Your task to perform on an android device: see tabs open on other devices in the chrome app Image 0: 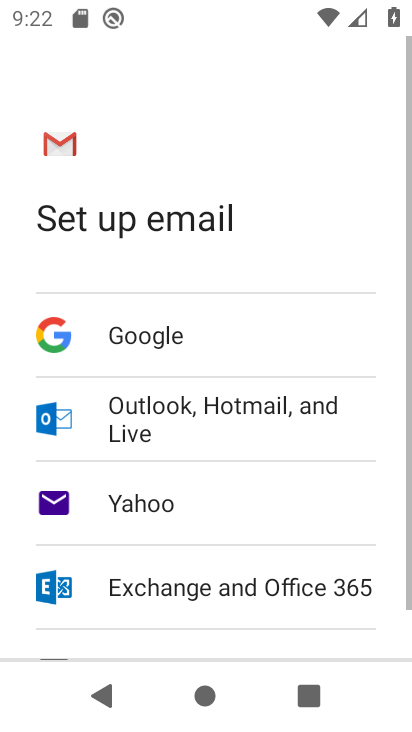
Step 0: press home button
Your task to perform on an android device: see tabs open on other devices in the chrome app Image 1: 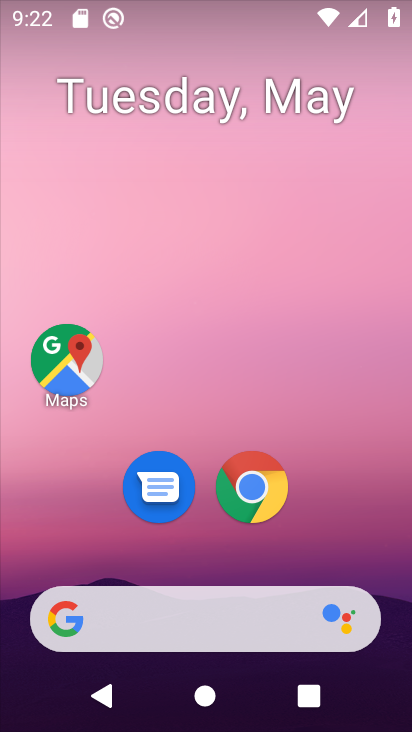
Step 1: click (240, 496)
Your task to perform on an android device: see tabs open on other devices in the chrome app Image 2: 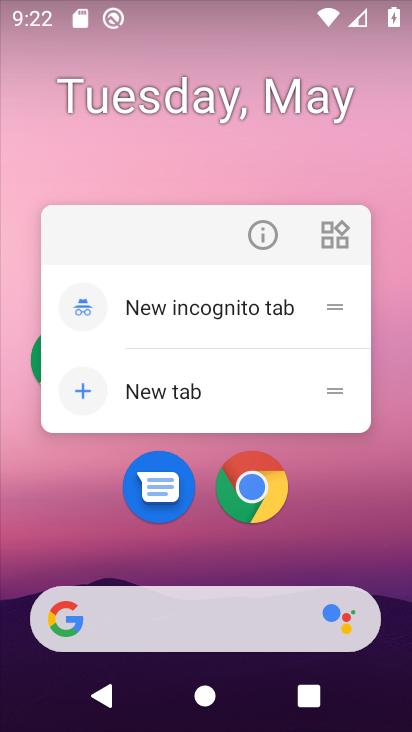
Step 2: click (240, 496)
Your task to perform on an android device: see tabs open on other devices in the chrome app Image 3: 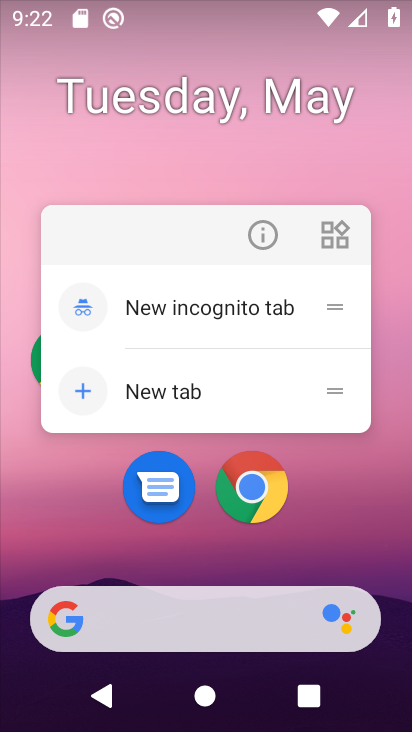
Step 3: click (263, 485)
Your task to perform on an android device: see tabs open on other devices in the chrome app Image 4: 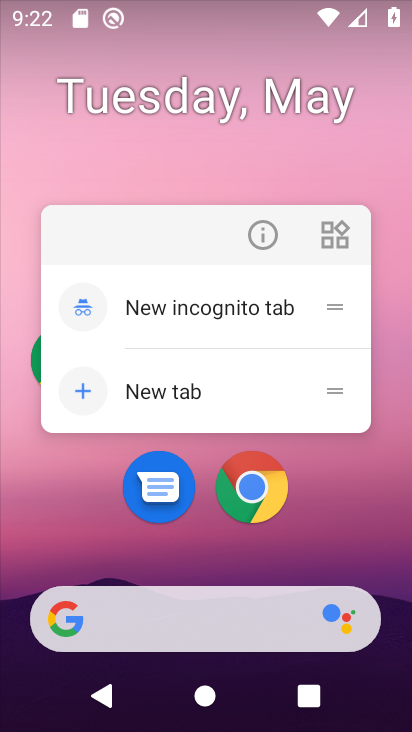
Step 4: click (263, 485)
Your task to perform on an android device: see tabs open on other devices in the chrome app Image 5: 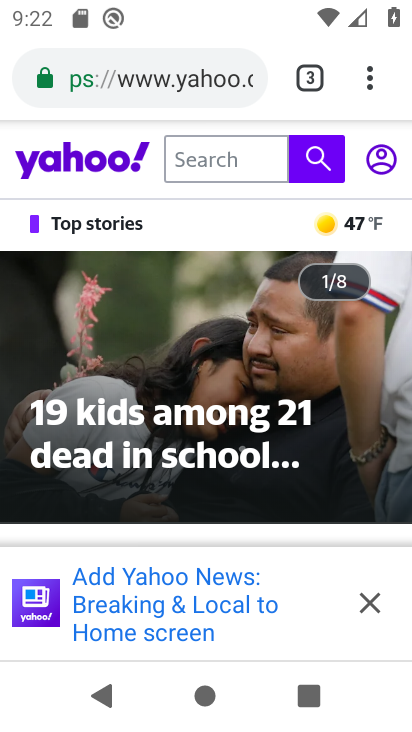
Step 5: task complete